Your task to perform on an android device: open wifi settings Image 0: 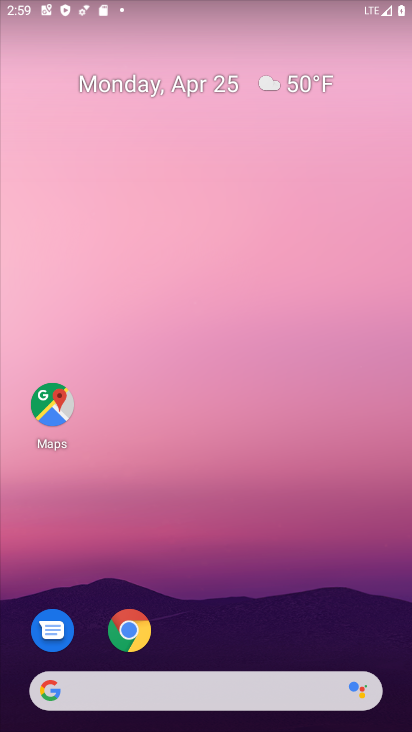
Step 0: drag from (230, 585) to (125, 169)
Your task to perform on an android device: open wifi settings Image 1: 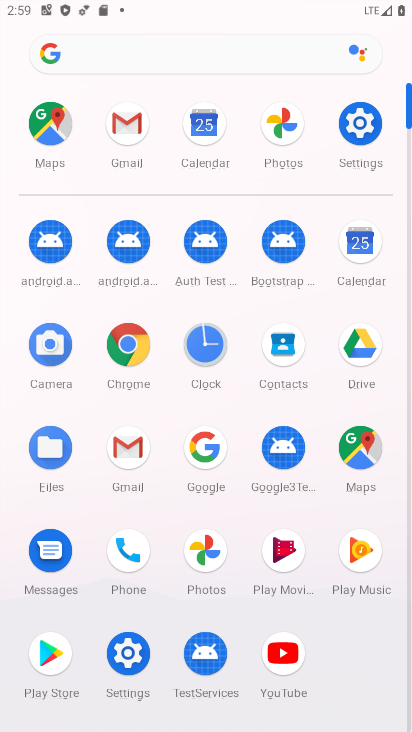
Step 1: click (356, 137)
Your task to perform on an android device: open wifi settings Image 2: 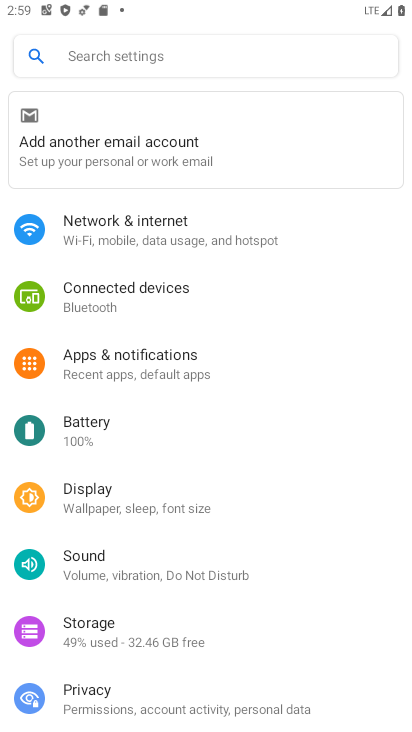
Step 2: click (157, 245)
Your task to perform on an android device: open wifi settings Image 3: 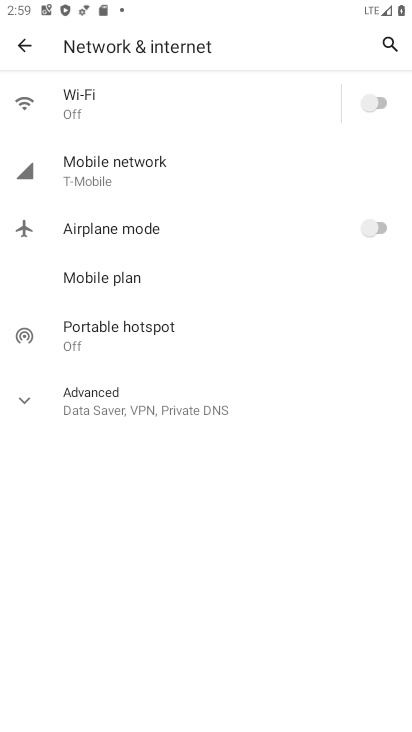
Step 3: click (68, 94)
Your task to perform on an android device: open wifi settings Image 4: 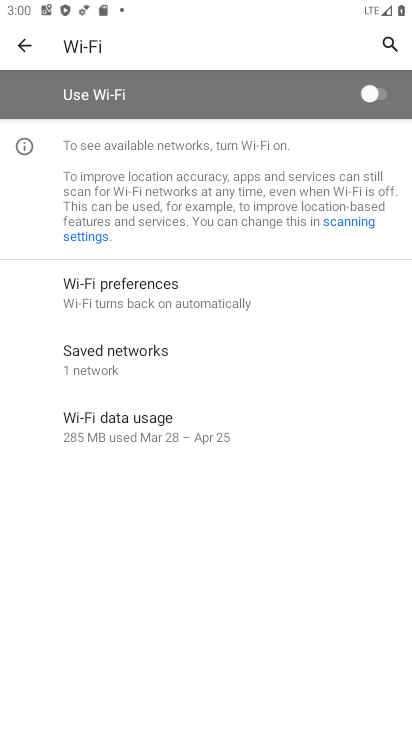
Step 4: task complete